Your task to perform on an android device: Go to wifi settings Image 0: 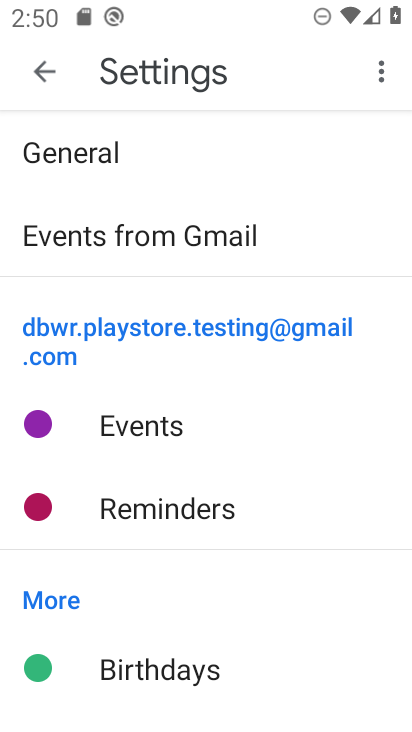
Step 0: drag from (286, 598) to (268, 190)
Your task to perform on an android device: Go to wifi settings Image 1: 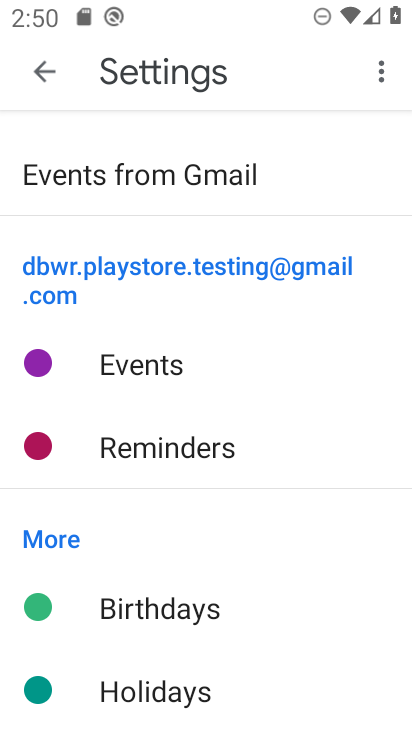
Step 1: drag from (280, 581) to (264, 194)
Your task to perform on an android device: Go to wifi settings Image 2: 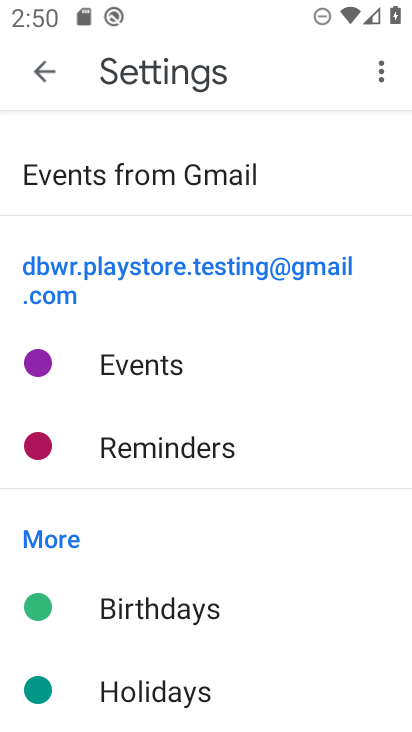
Step 2: press back button
Your task to perform on an android device: Go to wifi settings Image 3: 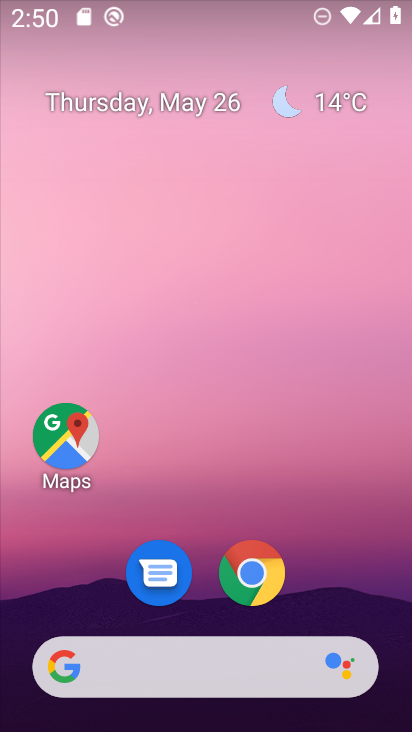
Step 3: drag from (326, 558) to (233, 53)
Your task to perform on an android device: Go to wifi settings Image 4: 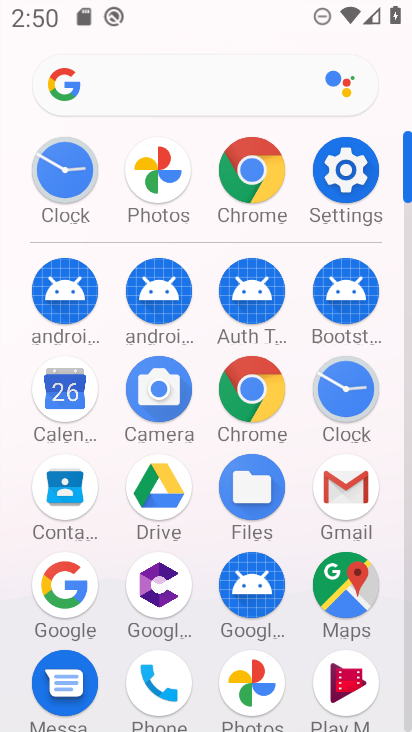
Step 4: click (340, 158)
Your task to perform on an android device: Go to wifi settings Image 5: 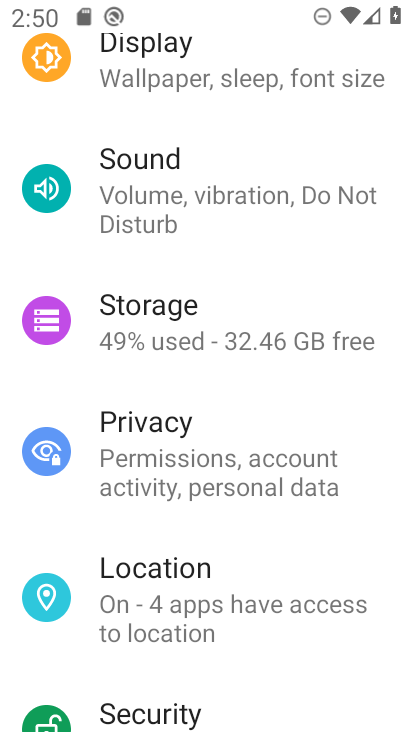
Step 5: drag from (271, 150) to (196, 570)
Your task to perform on an android device: Go to wifi settings Image 6: 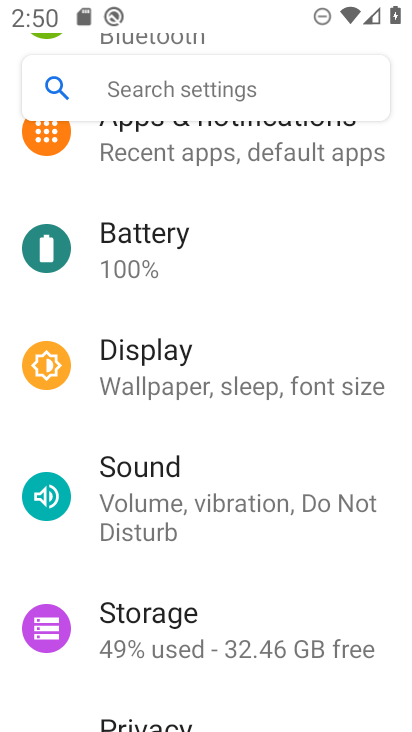
Step 6: drag from (200, 197) to (203, 541)
Your task to perform on an android device: Go to wifi settings Image 7: 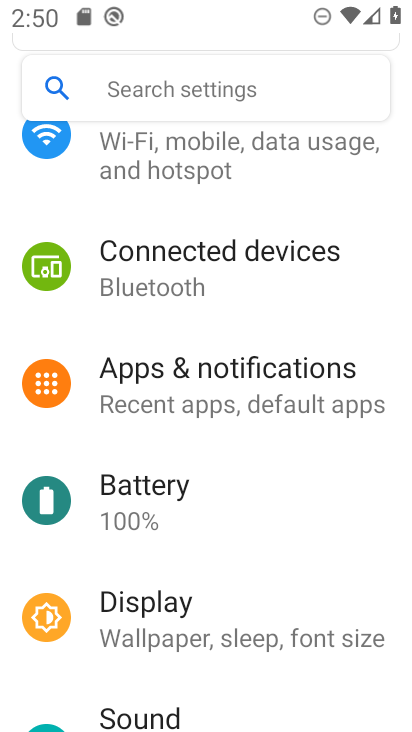
Step 7: drag from (236, 287) to (241, 561)
Your task to perform on an android device: Go to wifi settings Image 8: 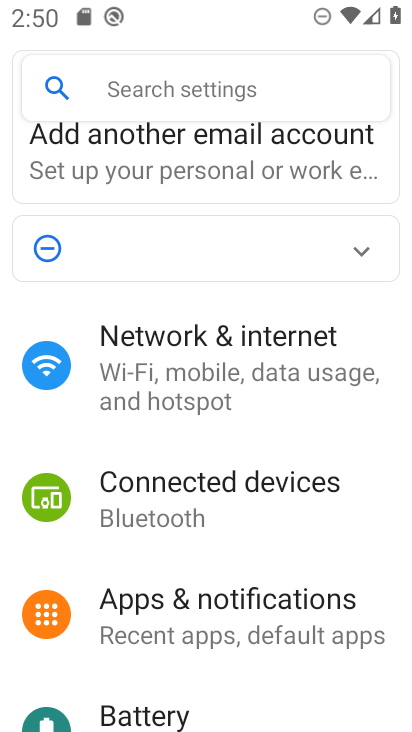
Step 8: click (224, 334)
Your task to perform on an android device: Go to wifi settings Image 9: 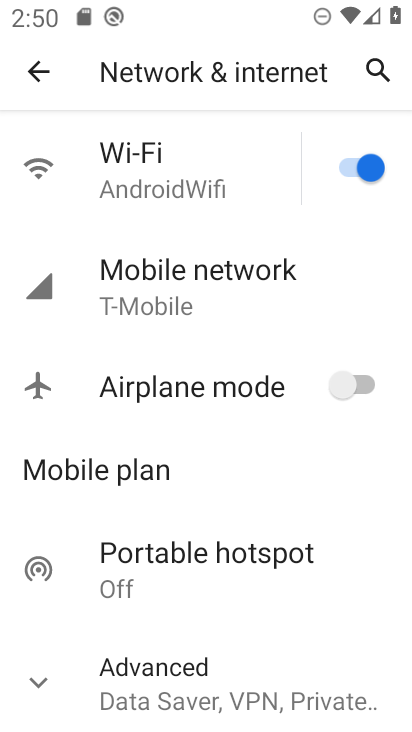
Step 9: click (35, 677)
Your task to perform on an android device: Go to wifi settings Image 10: 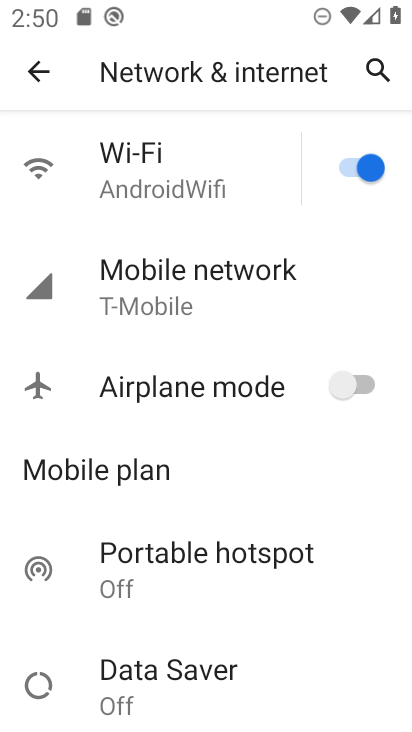
Step 10: click (158, 188)
Your task to perform on an android device: Go to wifi settings Image 11: 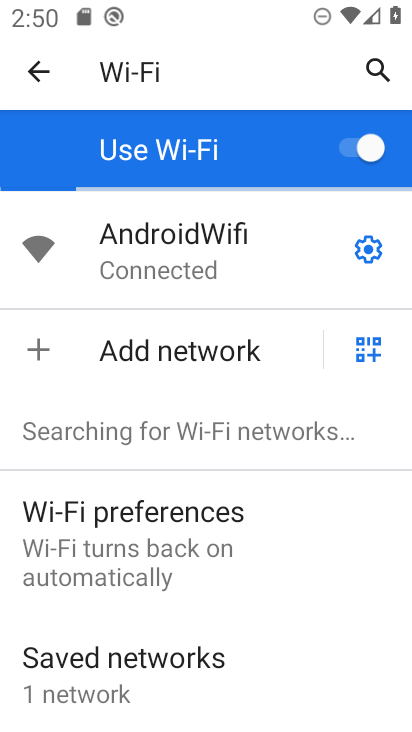
Step 11: task complete